Your task to perform on an android device: toggle wifi Image 0: 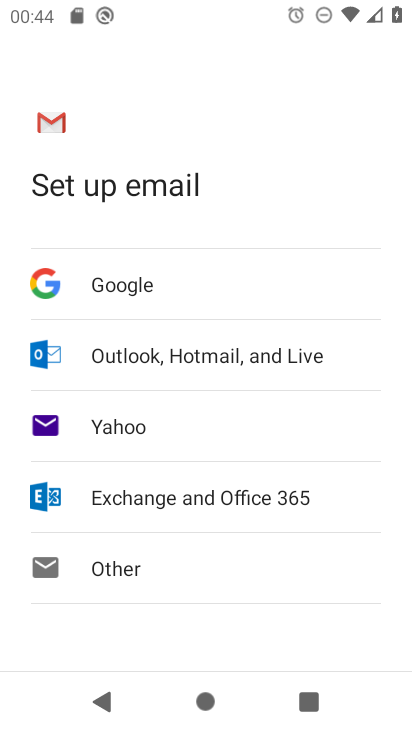
Step 0: press home button
Your task to perform on an android device: toggle wifi Image 1: 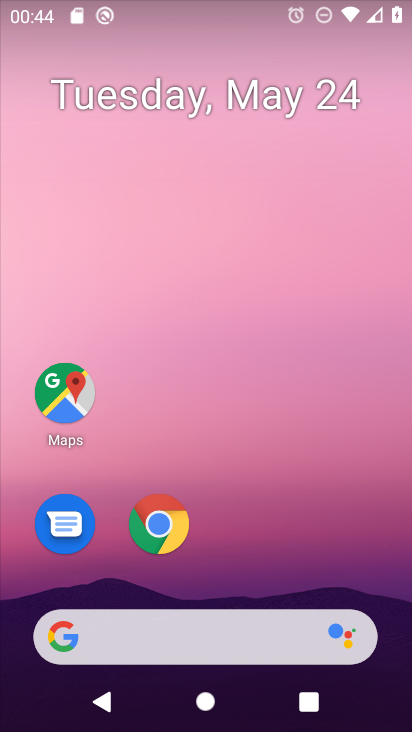
Step 1: drag from (199, 576) to (245, 108)
Your task to perform on an android device: toggle wifi Image 2: 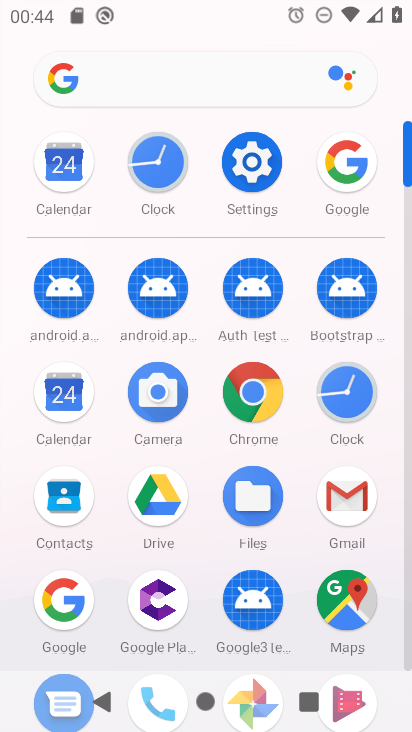
Step 2: click (258, 156)
Your task to perform on an android device: toggle wifi Image 3: 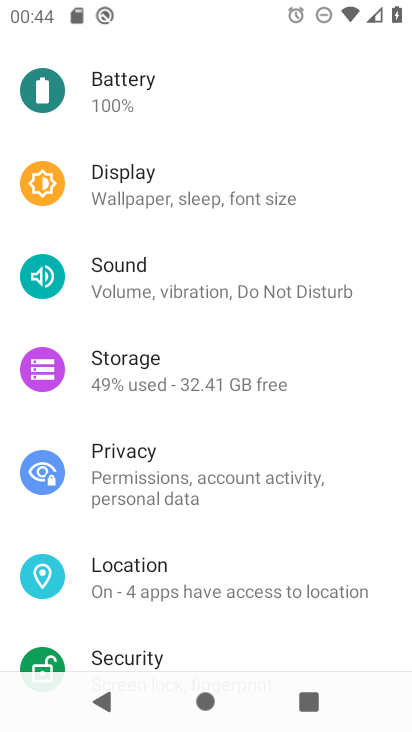
Step 3: drag from (182, 173) to (200, 575)
Your task to perform on an android device: toggle wifi Image 4: 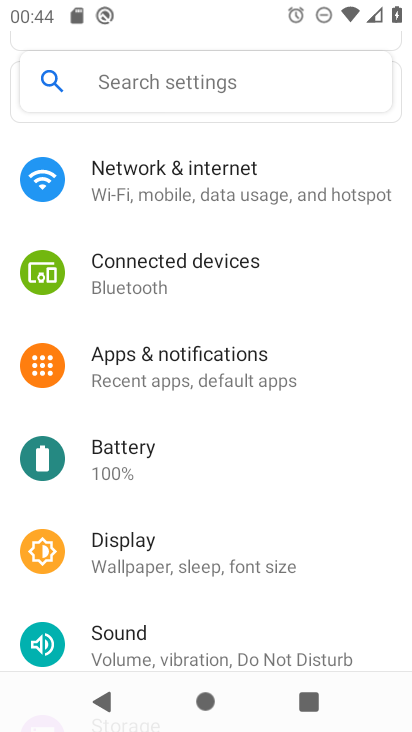
Step 4: click (172, 173)
Your task to perform on an android device: toggle wifi Image 5: 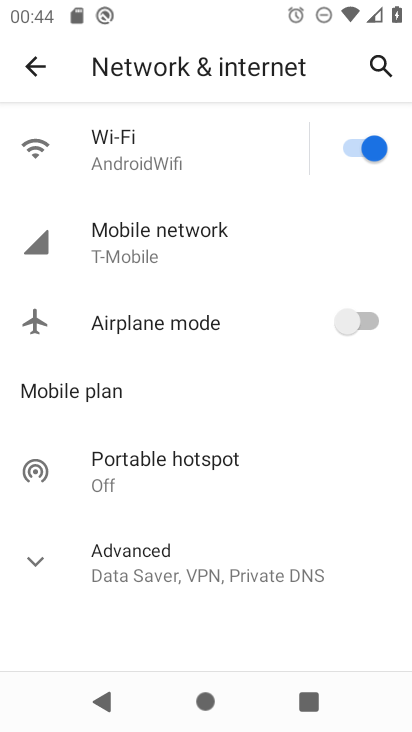
Step 5: click (352, 142)
Your task to perform on an android device: toggle wifi Image 6: 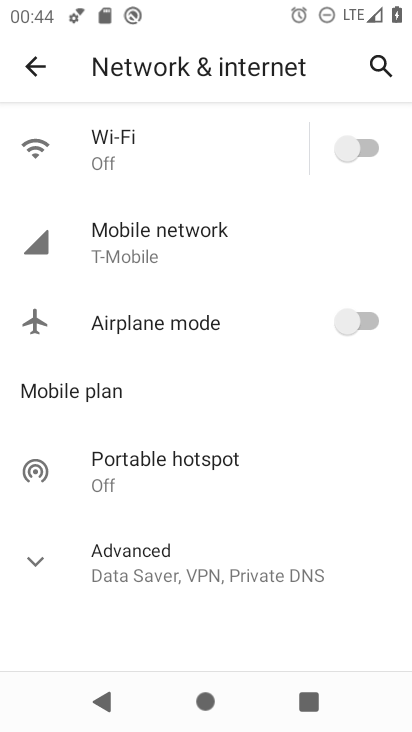
Step 6: task complete